Your task to perform on an android device: turn off location history Image 0: 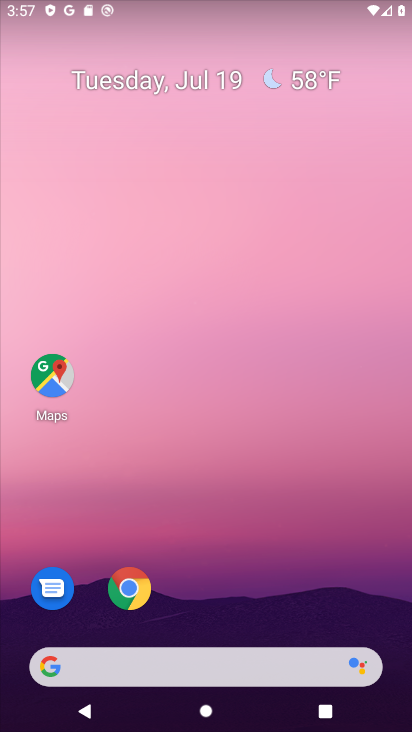
Step 0: drag from (268, 618) to (305, 218)
Your task to perform on an android device: turn off location history Image 1: 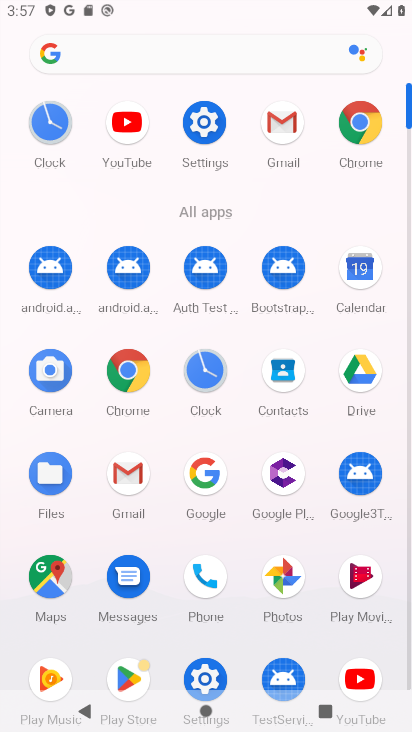
Step 1: click (209, 686)
Your task to perform on an android device: turn off location history Image 2: 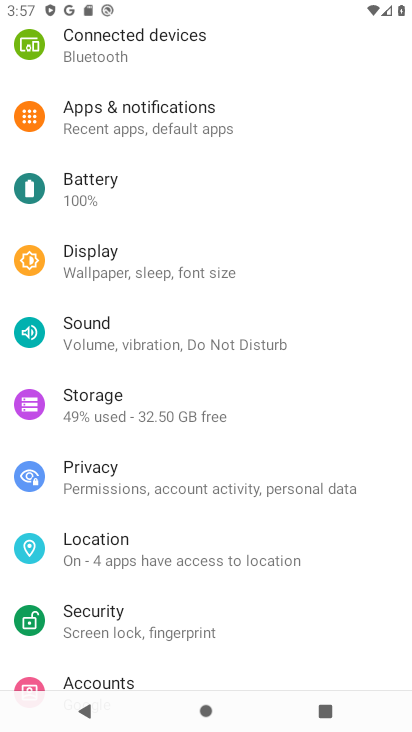
Step 2: click (149, 560)
Your task to perform on an android device: turn off location history Image 3: 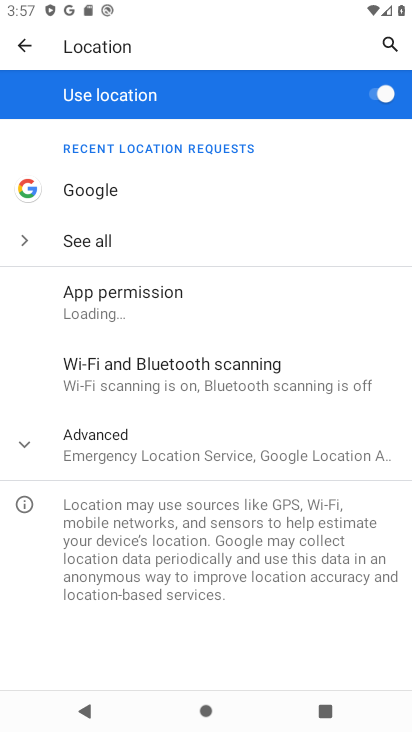
Step 3: click (152, 454)
Your task to perform on an android device: turn off location history Image 4: 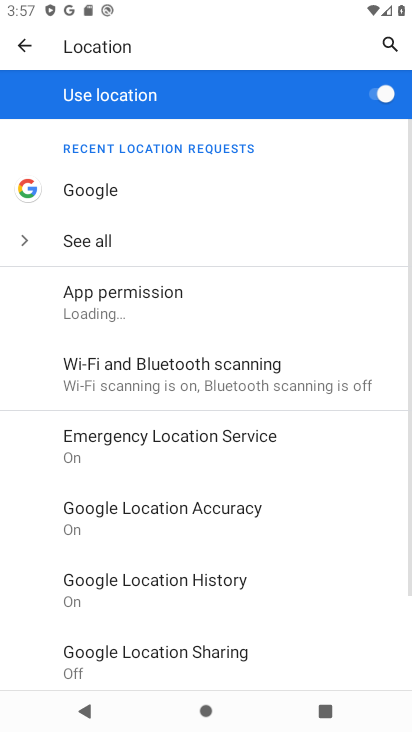
Step 4: click (217, 589)
Your task to perform on an android device: turn off location history Image 5: 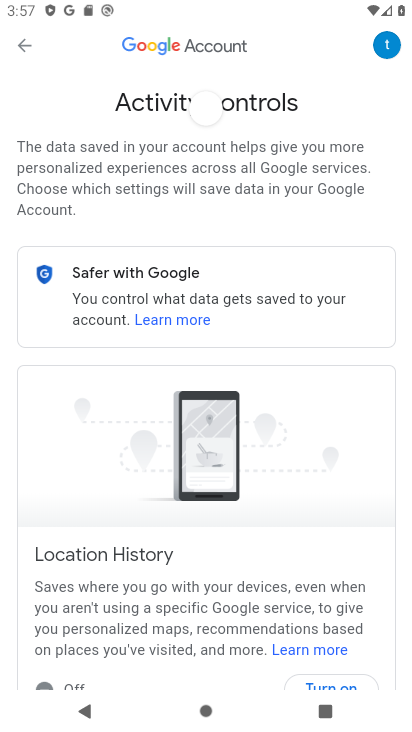
Step 5: task complete